Your task to perform on an android device: remove spam from my inbox in the gmail app Image 0: 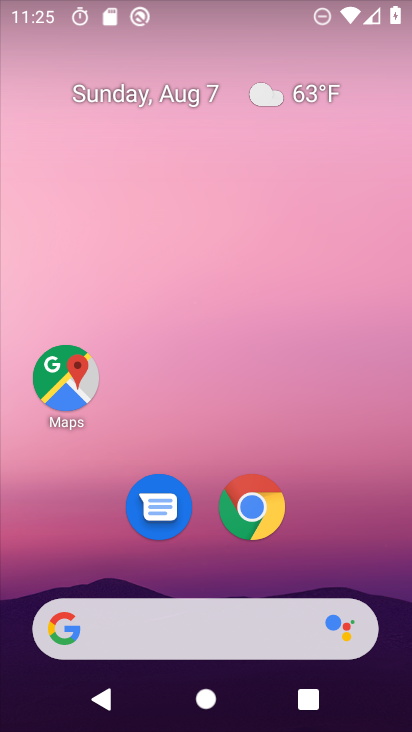
Step 0: drag from (375, 497) to (238, 47)
Your task to perform on an android device: remove spam from my inbox in the gmail app Image 1: 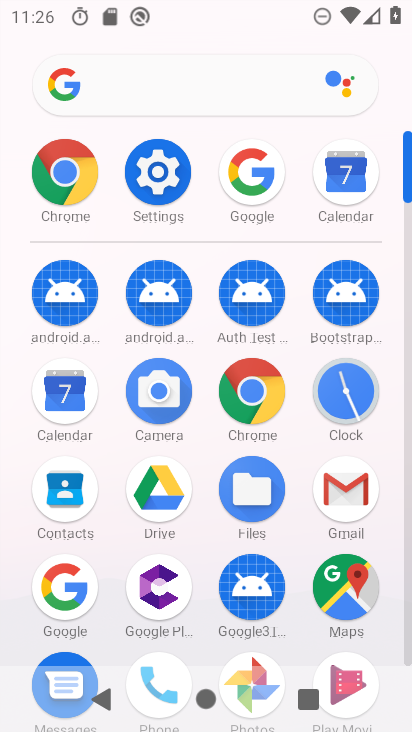
Step 1: click (352, 492)
Your task to perform on an android device: remove spam from my inbox in the gmail app Image 2: 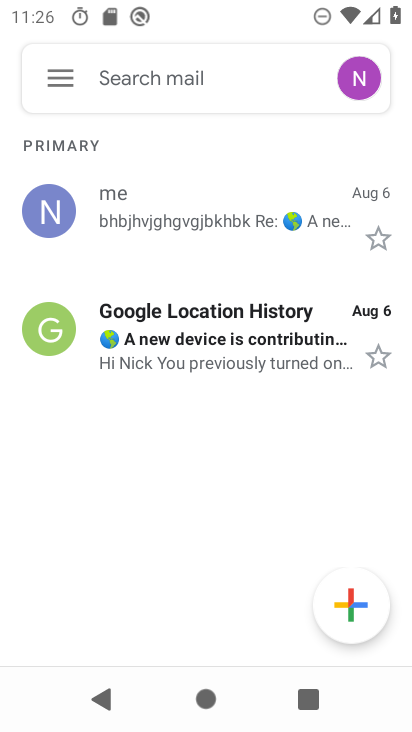
Step 2: click (59, 80)
Your task to perform on an android device: remove spam from my inbox in the gmail app Image 3: 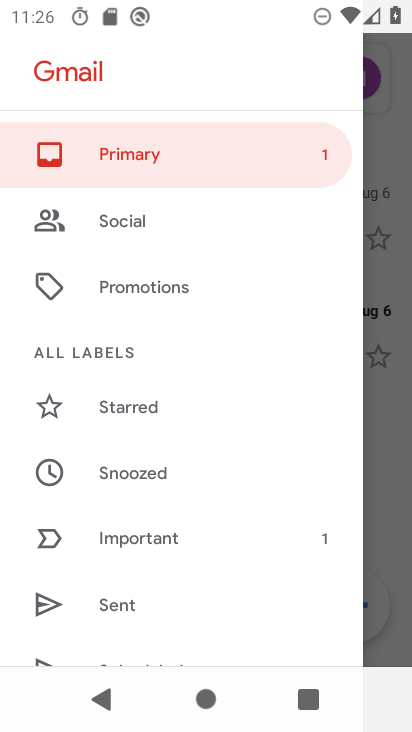
Step 3: drag from (160, 468) to (220, 123)
Your task to perform on an android device: remove spam from my inbox in the gmail app Image 4: 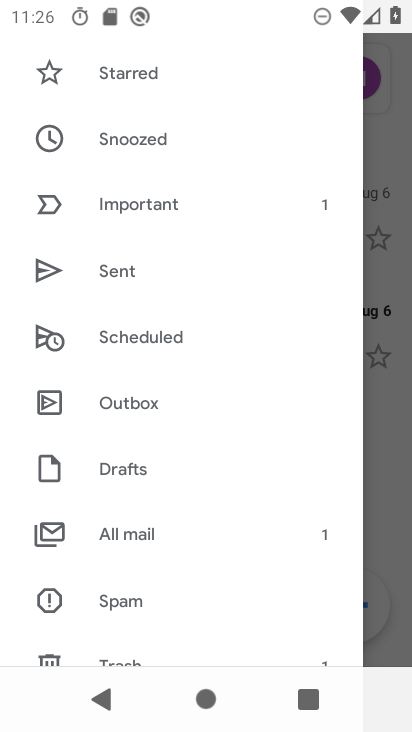
Step 4: drag from (207, 153) to (156, 635)
Your task to perform on an android device: remove spam from my inbox in the gmail app Image 5: 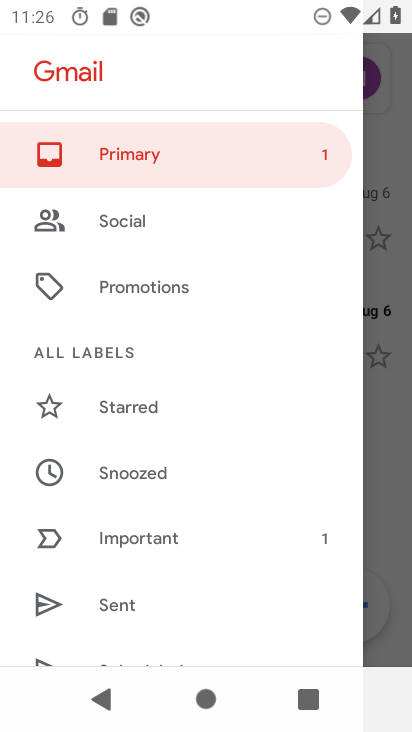
Step 5: click (400, 280)
Your task to perform on an android device: remove spam from my inbox in the gmail app Image 6: 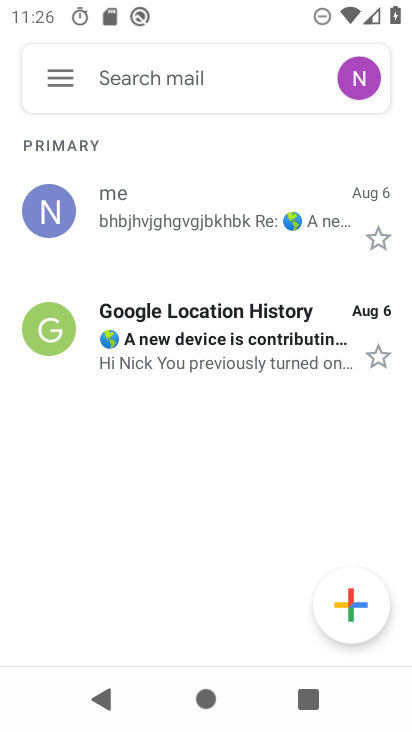
Step 6: task complete